Your task to perform on an android device: change the clock style Image 0: 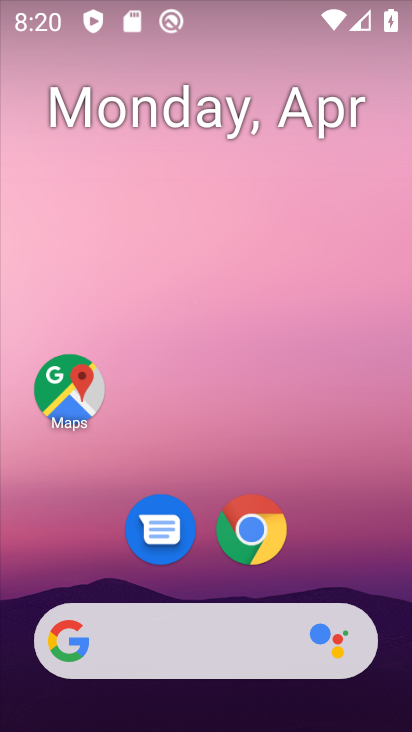
Step 0: drag from (373, 558) to (365, 61)
Your task to perform on an android device: change the clock style Image 1: 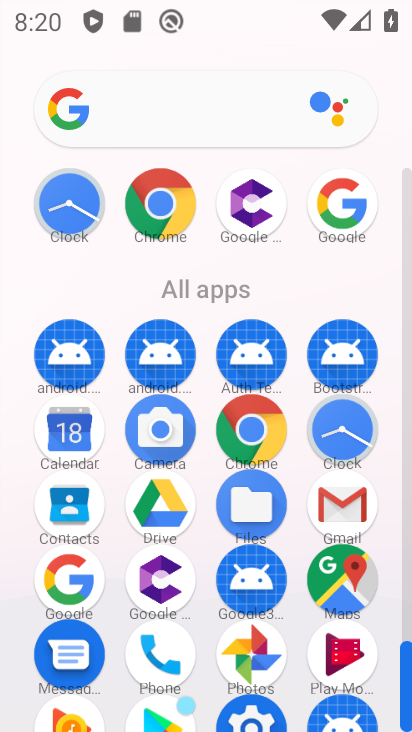
Step 1: click (338, 429)
Your task to perform on an android device: change the clock style Image 2: 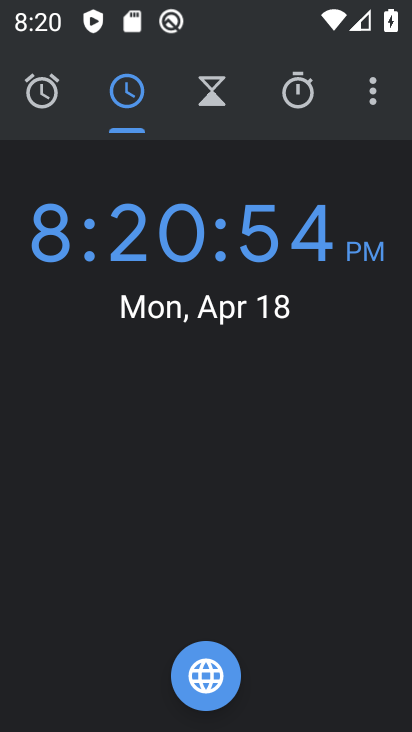
Step 2: click (372, 97)
Your task to perform on an android device: change the clock style Image 3: 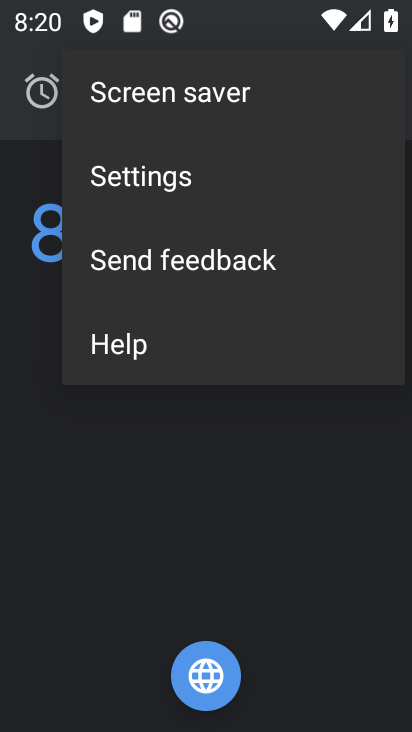
Step 3: click (164, 179)
Your task to perform on an android device: change the clock style Image 4: 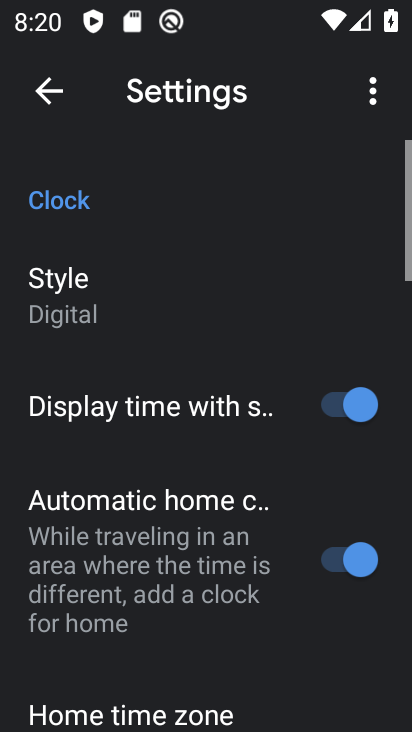
Step 4: click (53, 274)
Your task to perform on an android device: change the clock style Image 5: 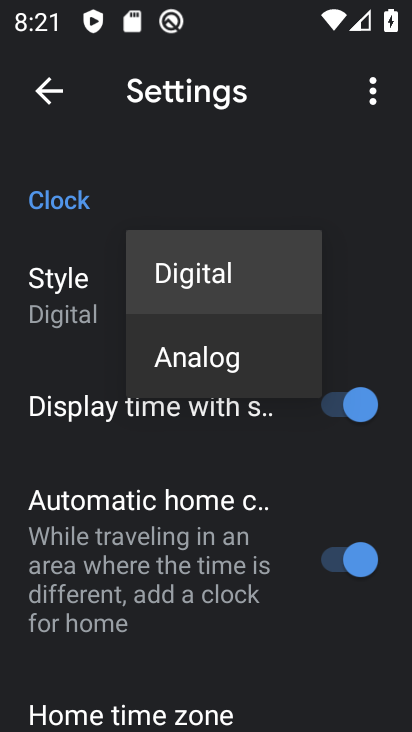
Step 5: click (193, 353)
Your task to perform on an android device: change the clock style Image 6: 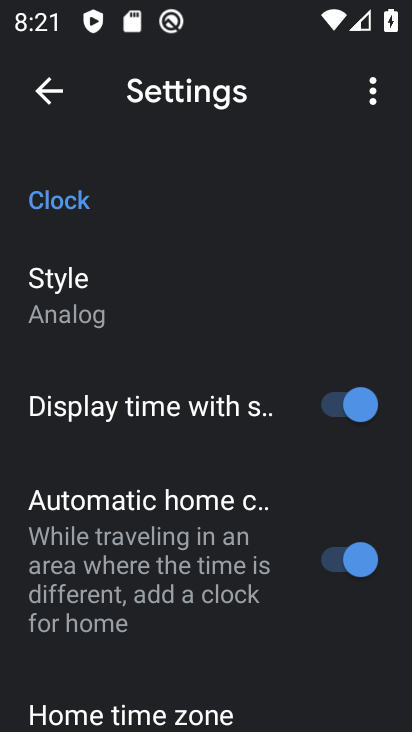
Step 6: task complete